Your task to perform on an android device: turn off sleep mode Image 0: 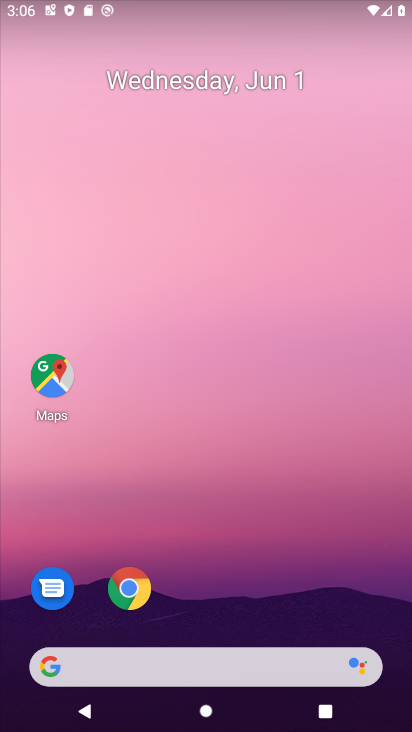
Step 0: drag from (346, 598) to (318, 185)
Your task to perform on an android device: turn off sleep mode Image 1: 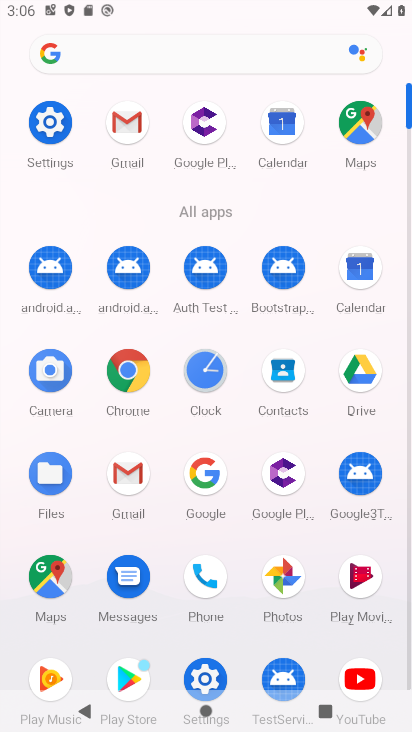
Step 1: click (54, 132)
Your task to perform on an android device: turn off sleep mode Image 2: 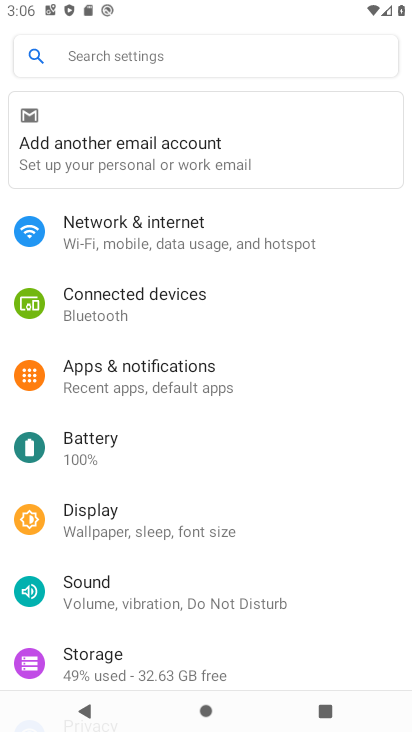
Step 2: click (187, 532)
Your task to perform on an android device: turn off sleep mode Image 3: 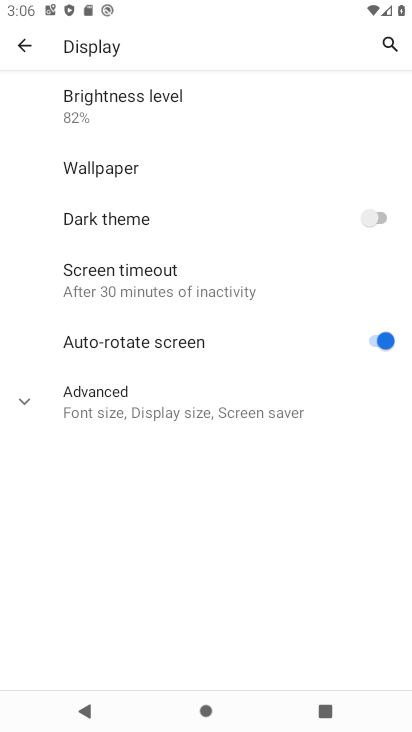
Step 3: click (166, 393)
Your task to perform on an android device: turn off sleep mode Image 4: 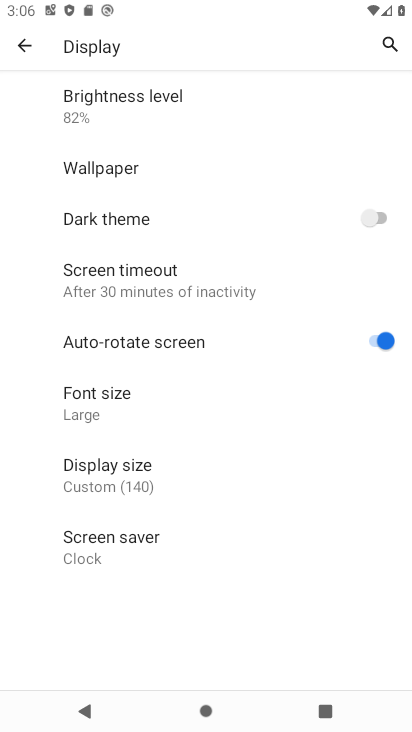
Step 4: click (166, 393)
Your task to perform on an android device: turn off sleep mode Image 5: 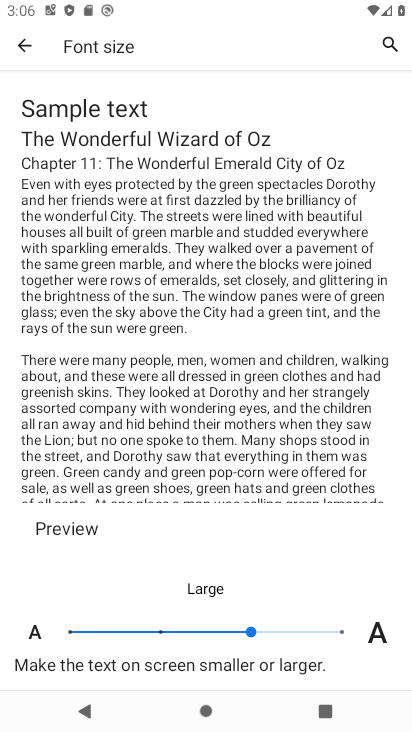
Step 5: task complete